Your task to perform on an android device: Go to calendar. Show me events next week Image 0: 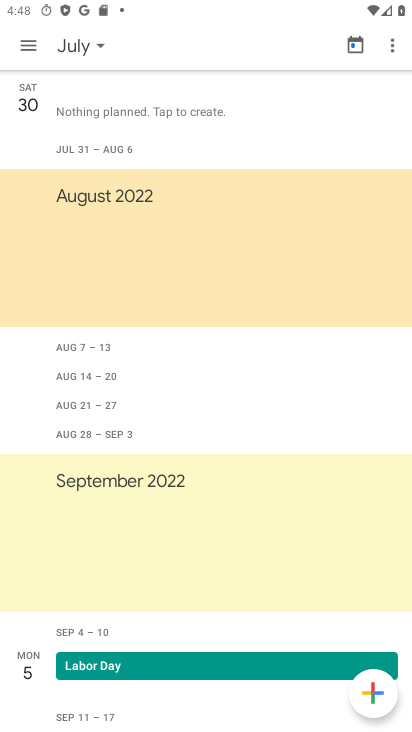
Step 0: press home button
Your task to perform on an android device: Go to calendar. Show me events next week Image 1: 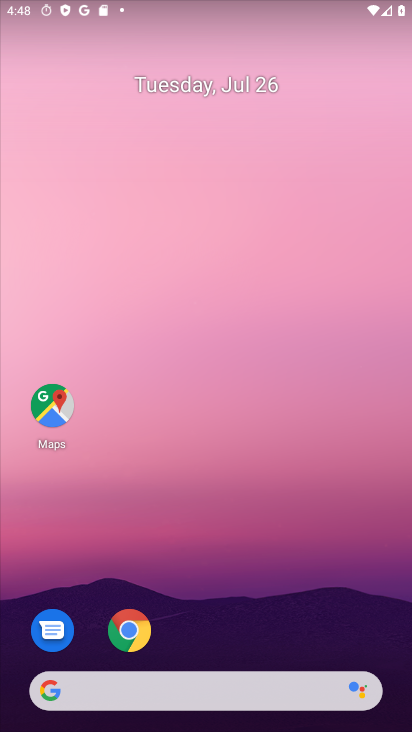
Step 1: drag from (296, 631) to (246, 57)
Your task to perform on an android device: Go to calendar. Show me events next week Image 2: 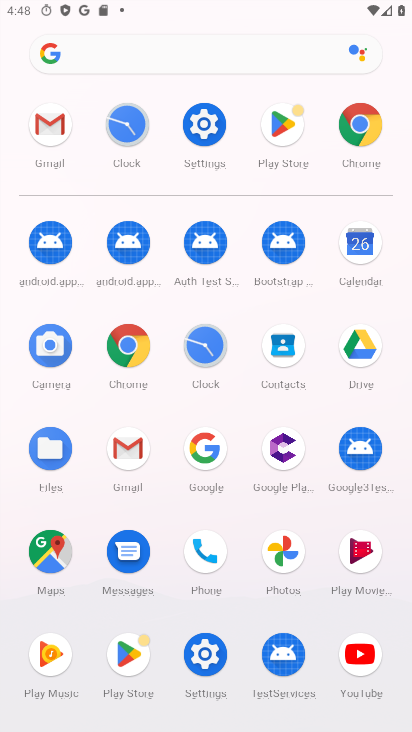
Step 2: click (373, 234)
Your task to perform on an android device: Go to calendar. Show me events next week Image 3: 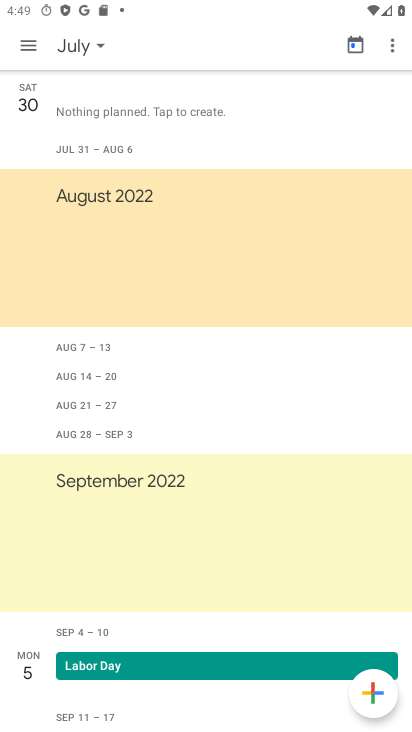
Step 3: drag from (391, 42) to (396, 374)
Your task to perform on an android device: Go to calendar. Show me events next week Image 4: 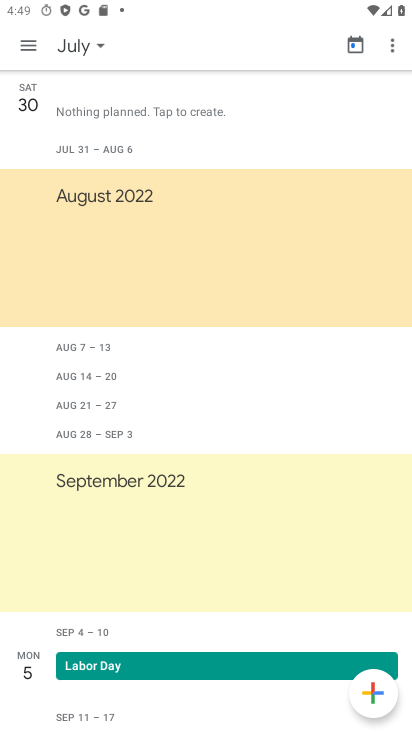
Step 4: click (75, 48)
Your task to perform on an android device: Go to calendar. Show me events next week Image 5: 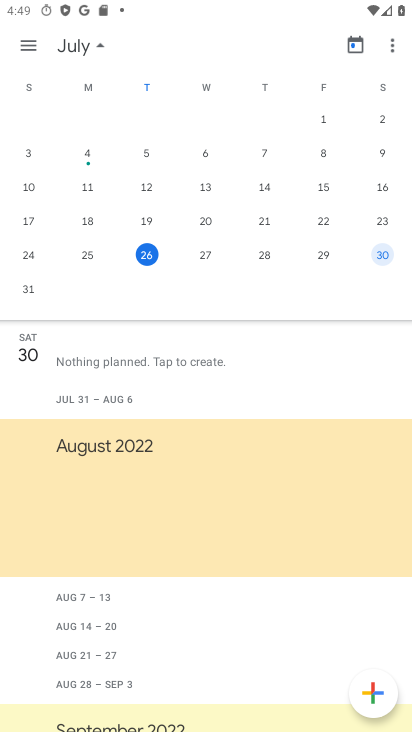
Step 5: drag from (356, 195) to (27, 171)
Your task to perform on an android device: Go to calendar. Show me events next week Image 6: 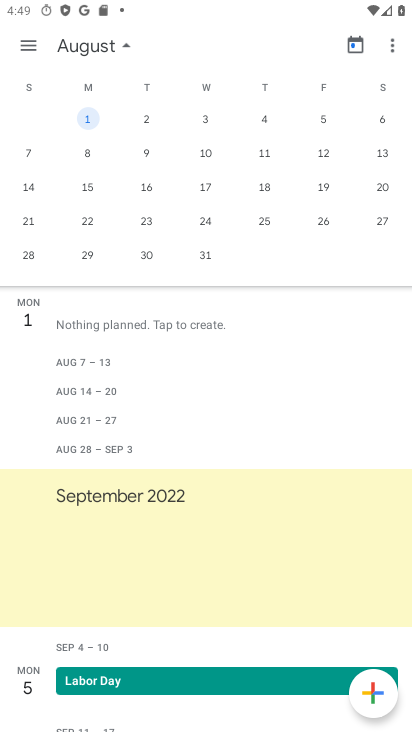
Step 6: click (28, 36)
Your task to perform on an android device: Go to calendar. Show me events next week Image 7: 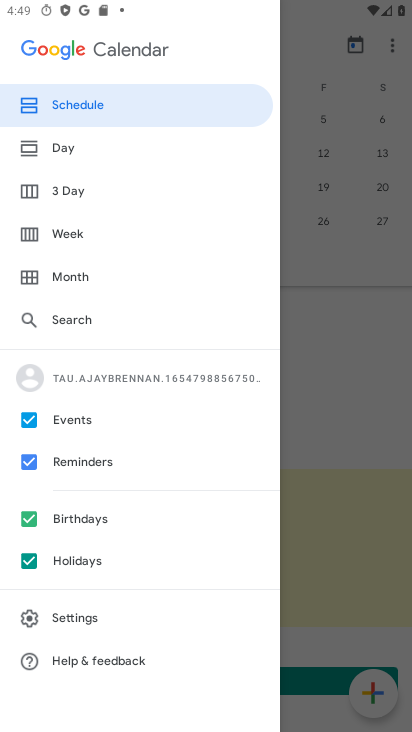
Step 7: click (70, 235)
Your task to perform on an android device: Go to calendar. Show me events next week Image 8: 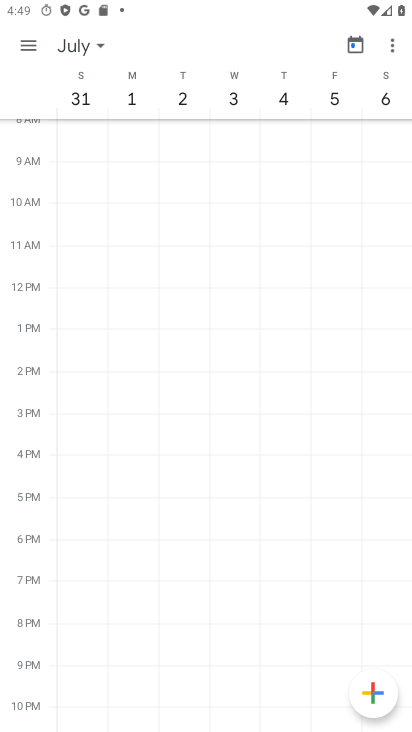
Step 8: task complete